Your task to perform on an android device: turn off location history Image 0: 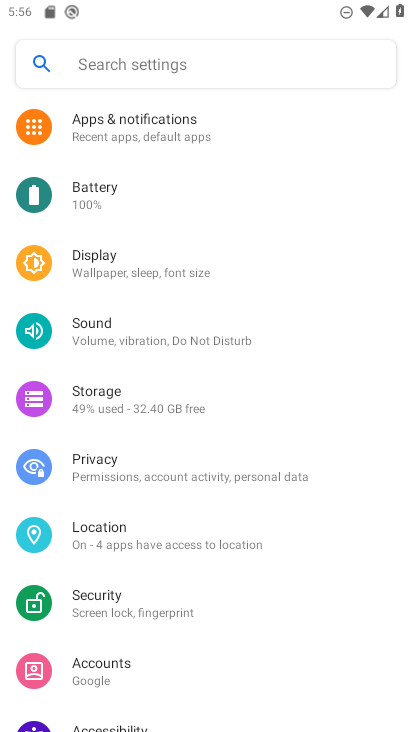
Step 0: click (186, 538)
Your task to perform on an android device: turn off location history Image 1: 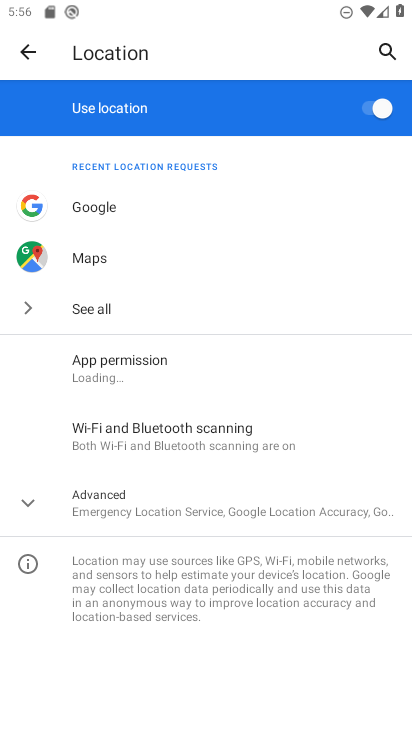
Step 1: click (160, 521)
Your task to perform on an android device: turn off location history Image 2: 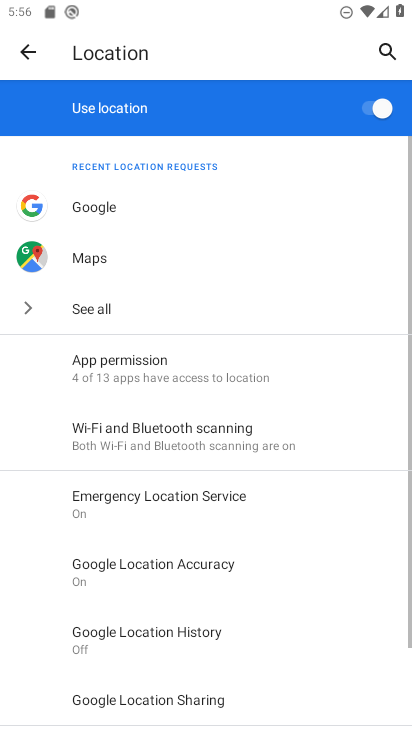
Step 2: click (121, 652)
Your task to perform on an android device: turn off location history Image 3: 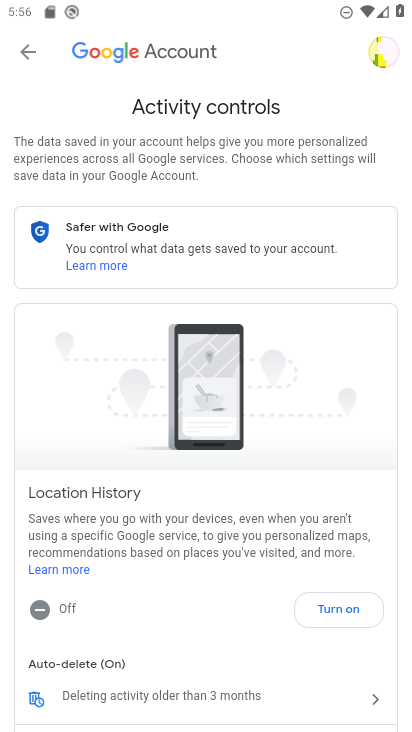
Step 3: task complete